Your task to perform on an android device: Is it going to rain tomorrow? Image 0: 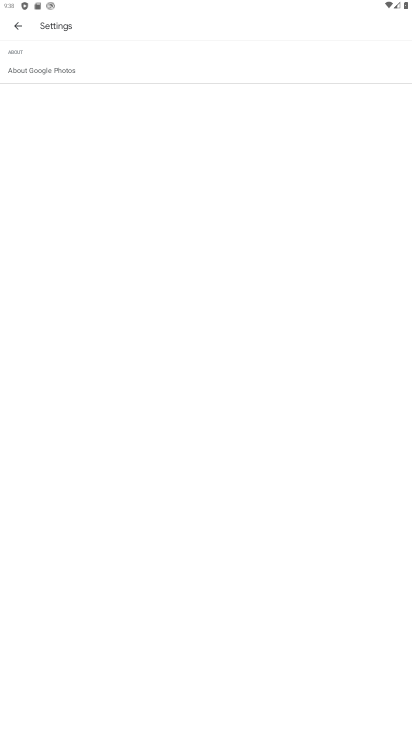
Step 0: press home button
Your task to perform on an android device: Is it going to rain tomorrow? Image 1: 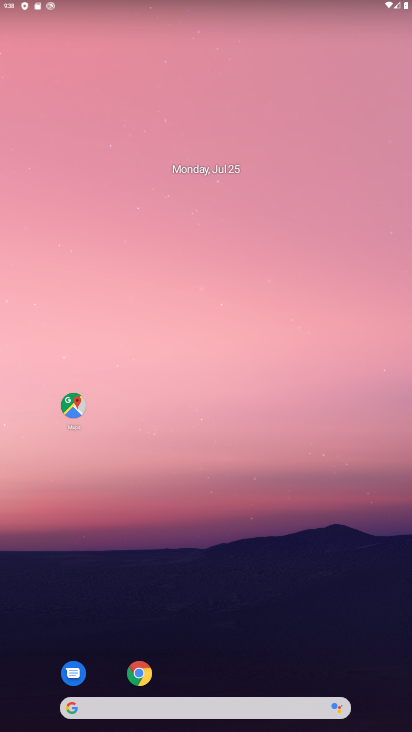
Step 1: drag from (271, 628) to (297, 75)
Your task to perform on an android device: Is it going to rain tomorrow? Image 2: 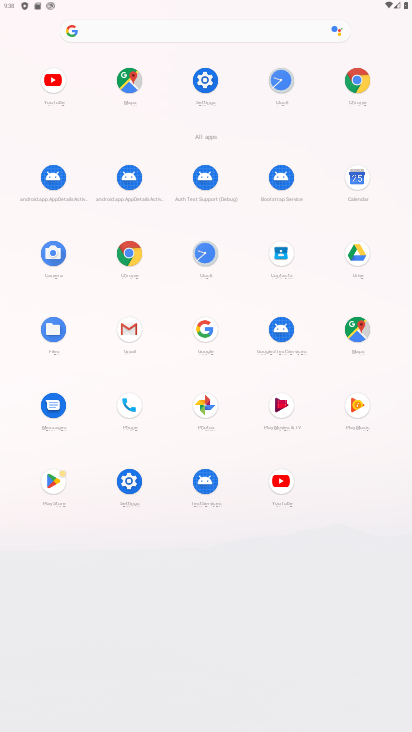
Step 2: click (128, 248)
Your task to perform on an android device: Is it going to rain tomorrow? Image 3: 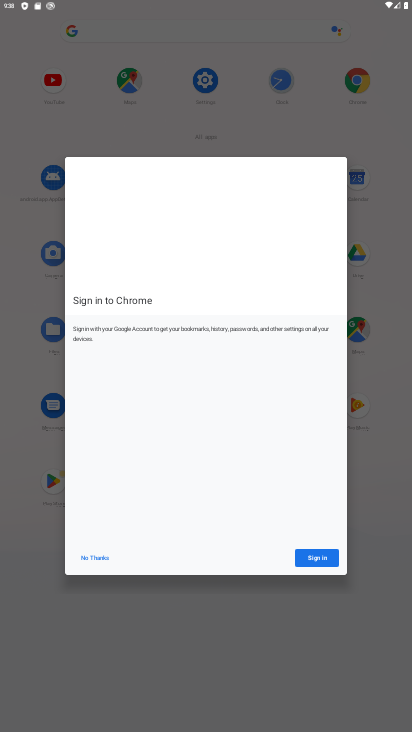
Step 3: task complete